Your task to perform on an android device: Open the Play Movies app and select the watchlist tab. Image 0: 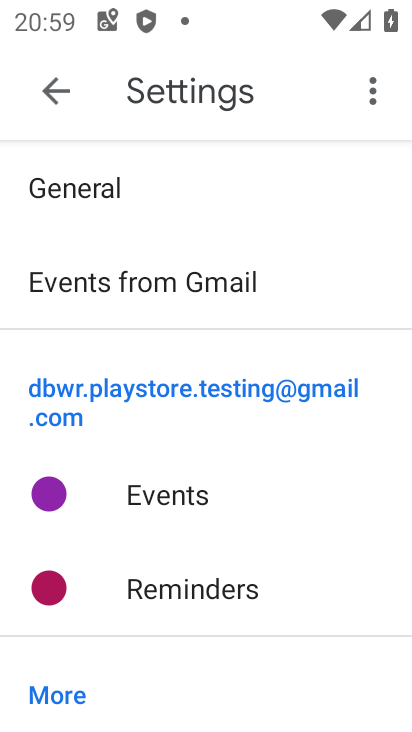
Step 0: press home button
Your task to perform on an android device: Open the Play Movies app and select the watchlist tab. Image 1: 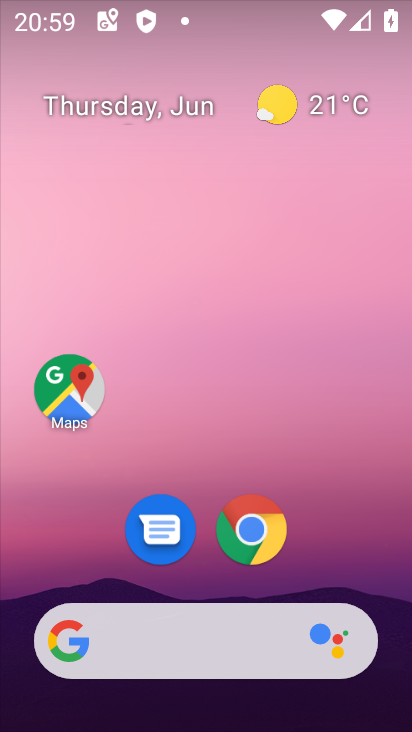
Step 1: drag from (320, 552) to (184, 20)
Your task to perform on an android device: Open the Play Movies app and select the watchlist tab. Image 2: 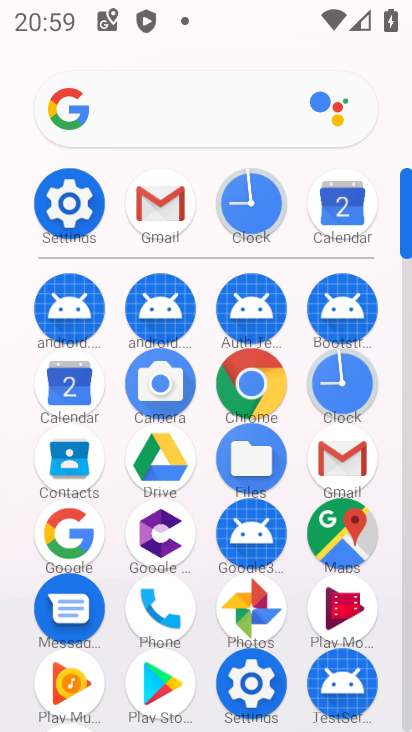
Step 2: click (342, 608)
Your task to perform on an android device: Open the Play Movies app and select the watchlist tab. Image 3: 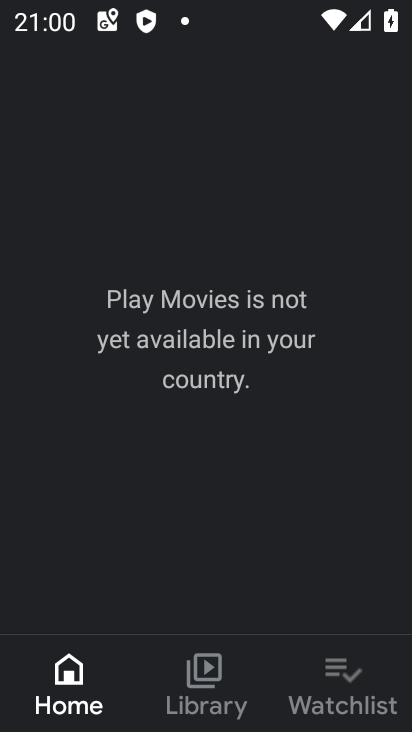
Step 3: click (330, 683)
Your task to perform on an android device: Open the Play Movies app and select the watchlist tab. Image 4: 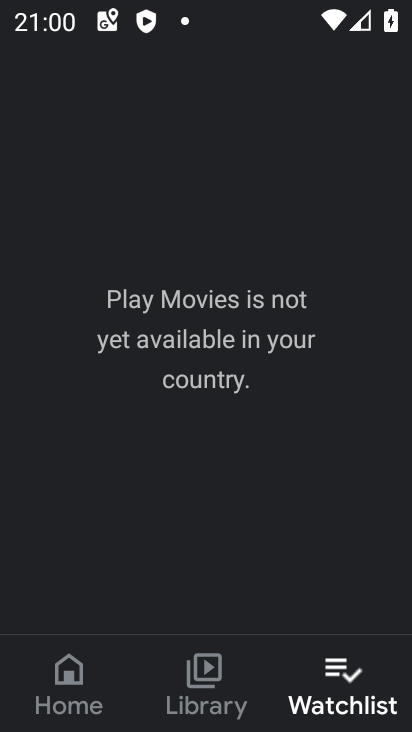
Step 4: task complete